Your task to perform on an android device: add a label to a message in the gmail app Image 0: 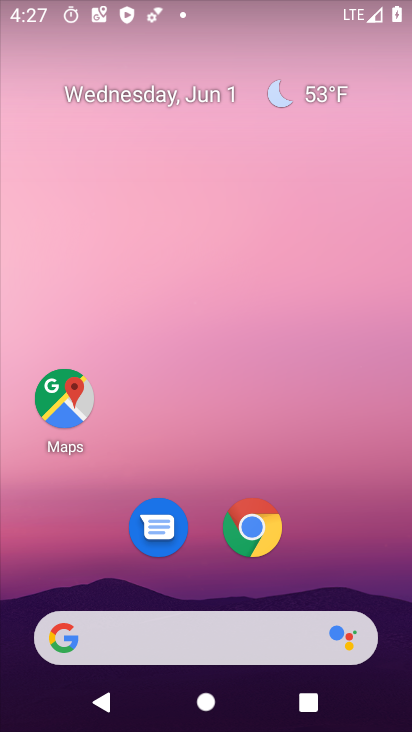
Step 0: drag from (335, 564) to (319, 105)
Your task to perform on an android device: add a label to a message in the gmail app Image 1: 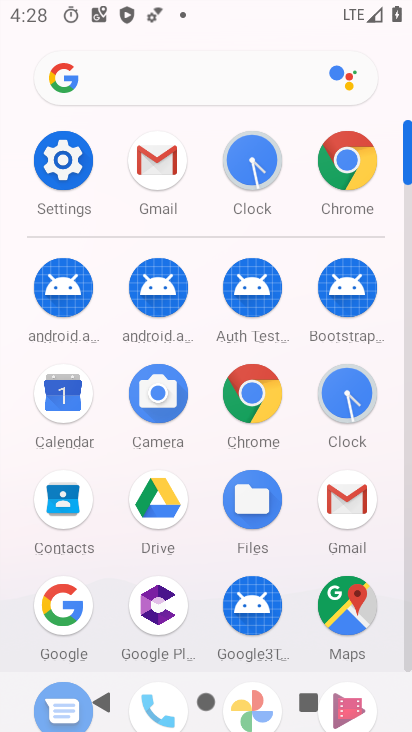
Step 1: click (346, 494)
Your task to perform on an android device: add a label to a message in the gmail app Image 2: 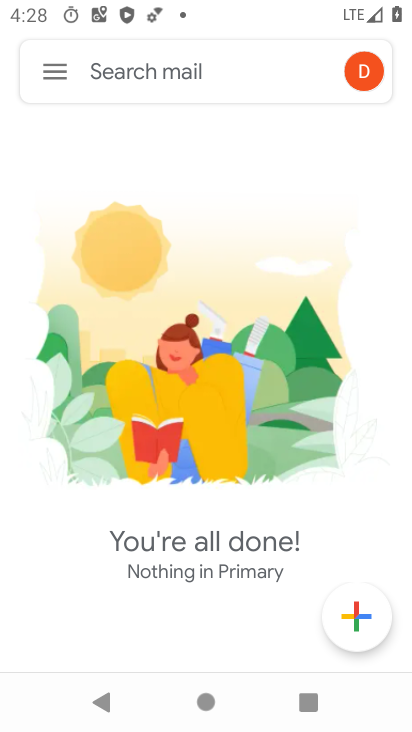
Step 2: task complete